Your task to perform on an android device: read, delete, or share a saved page in the chrome app Image 0: 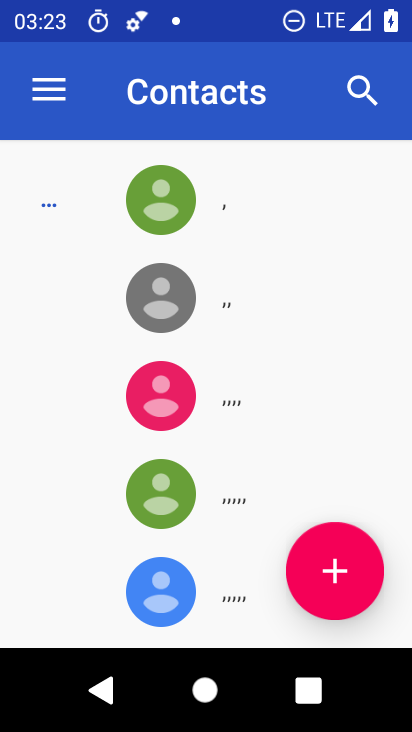
Step 0: press home button
Your task to perform on an android device: read, delete, or share a saved page in the chrome app Image 1: 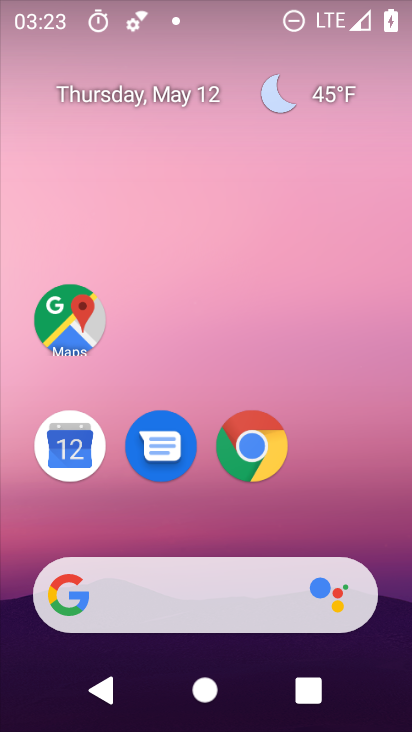
Step 1: click (248, 466)
Your task to perform on an android device: read, delete, or share a saved page in the chrome app Image 2: 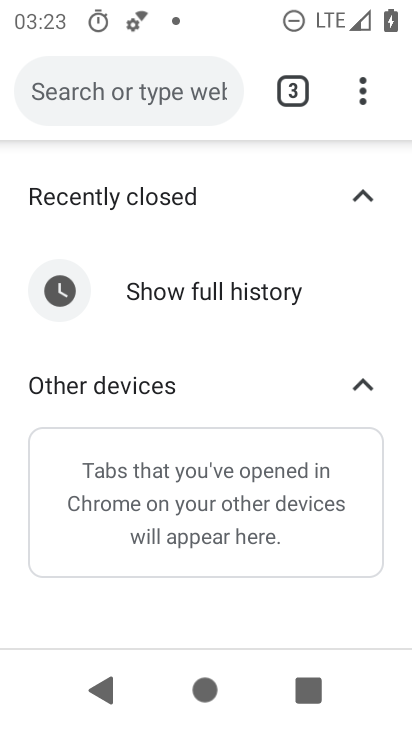
Step 2: click (350, 101)
Your task to perform on an android device: read, delete, or share a saved page in the chrome app Image 3: 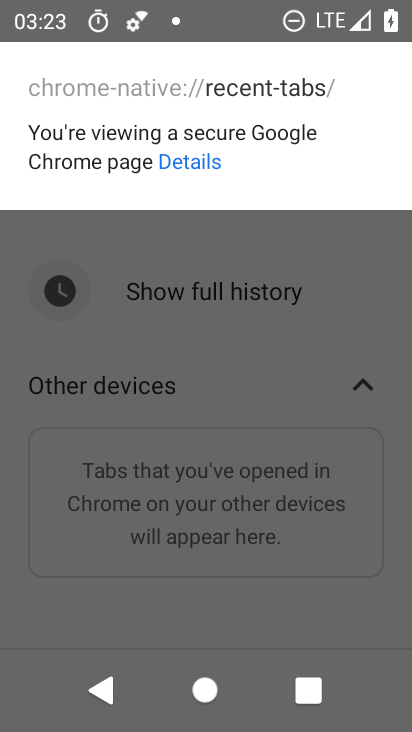
Step 3: click (324, 287)
Your task to perform on an android device: read, delete, or share a saved page in the chrome app Image 4: 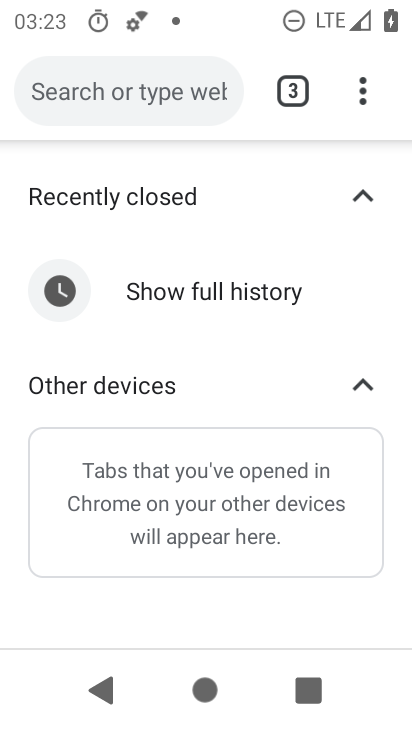
Step 4: drag from (367, 91) to (134, 308)
Your task to perform on an android device: read, delete, or share a saved page in the chrome app Image 5: 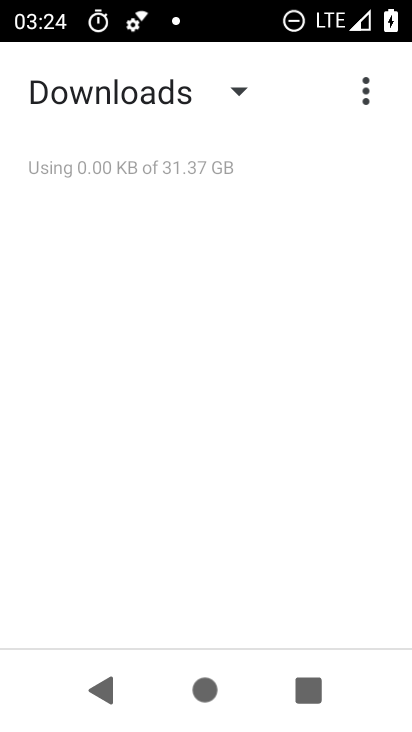
Step 5: click (194, 99)
Your task to perform on an android device: read, delete, or share a saved page in the chrome app Image 6: 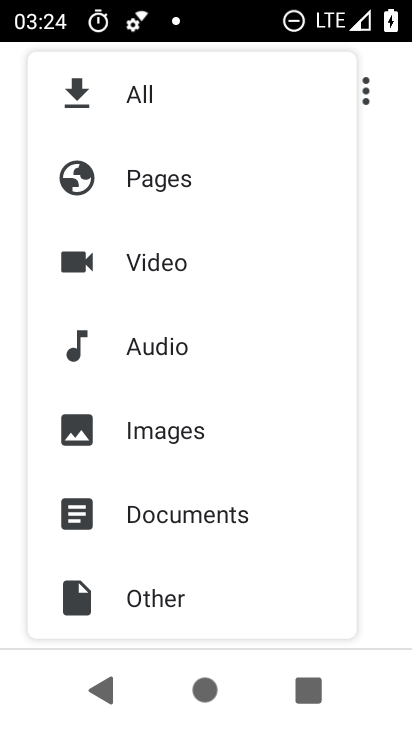
Step 6: click (189, 183)
Your task to perform on an android device: read, delete, or share a saved page in the chrome app Image 7: 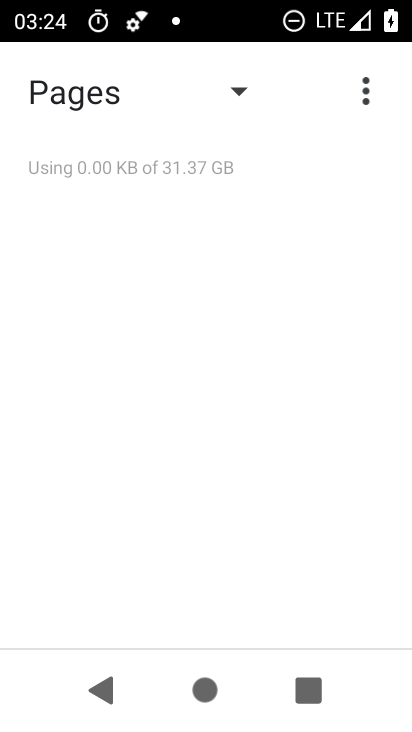
Step 7: task complete